Your task to perform on an android device: Add lg ultragear to the cart on bestbuy.com Image 0: 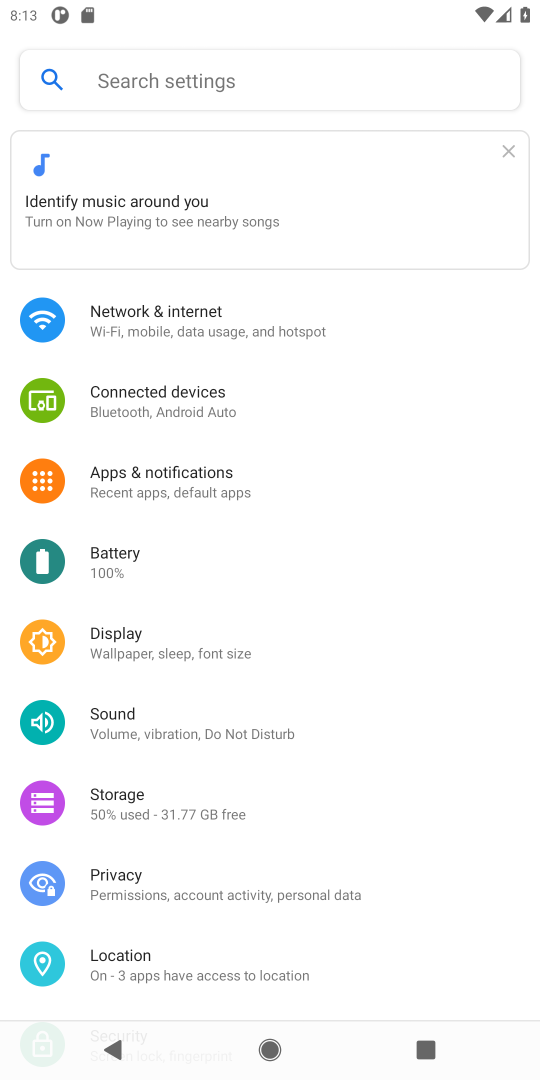
Step 0: press home button
Your task to perform on an android device: Add lg ultragear to the cart on bestbuy.com Image 1: 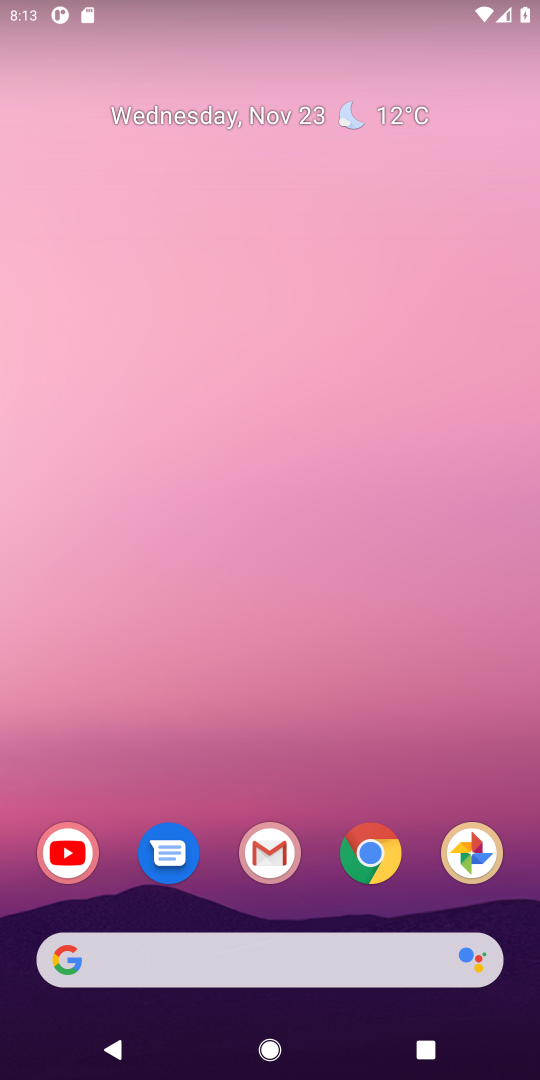
Step 1: click (363, 847)
Your task to perform on an android device: Add lg ultragear to the cart on bestbuy.com Image 2: 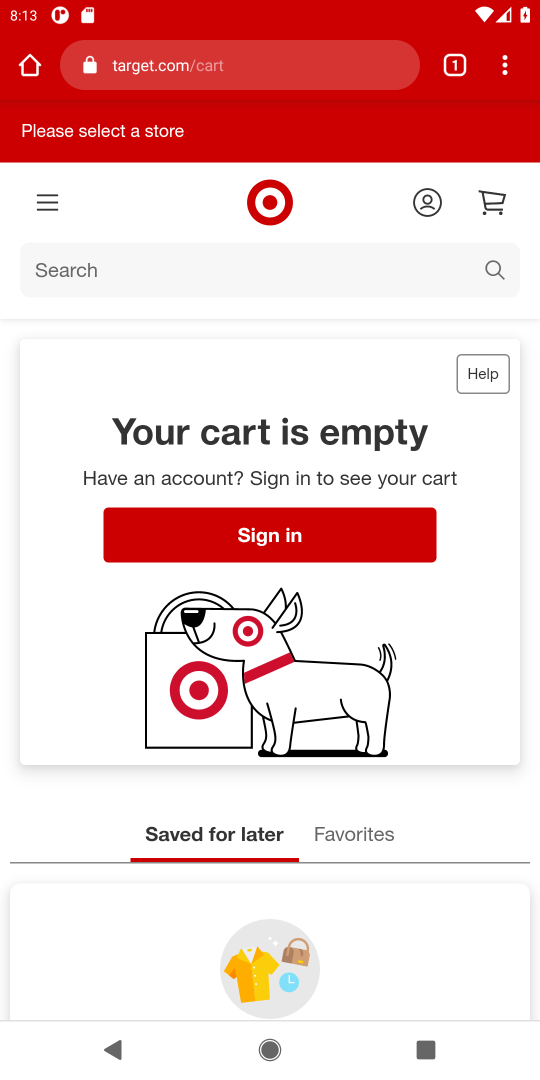
Step 2: click (200, 74)
Your task to perform on an android device: Add lg ultragear to the cart on bestbuy.com Image 3: 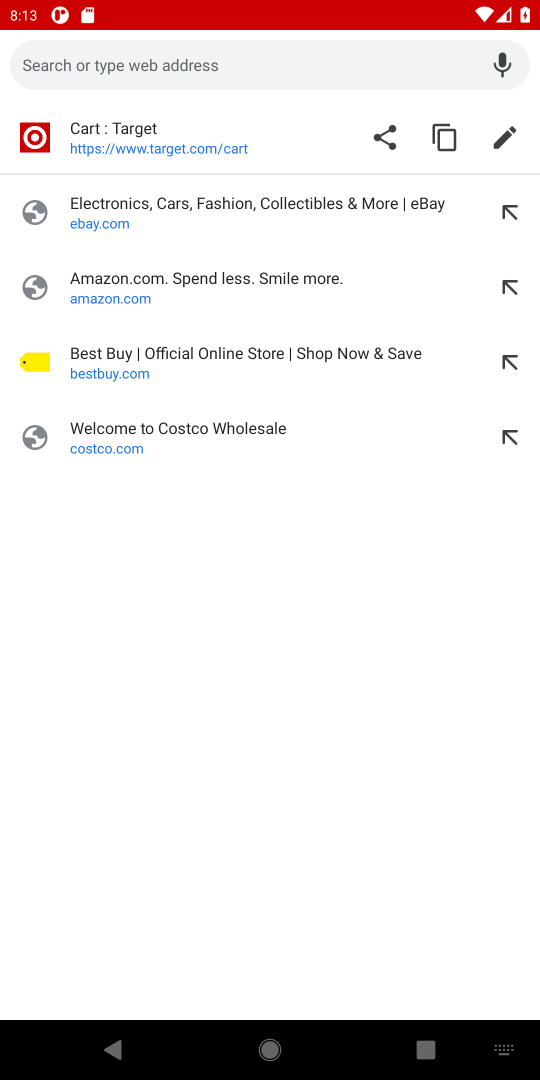
Step 3: click (102, 365)
Your task to perform on an android device: Add lg ultragear to the cart on bestbuy.com Image 4: 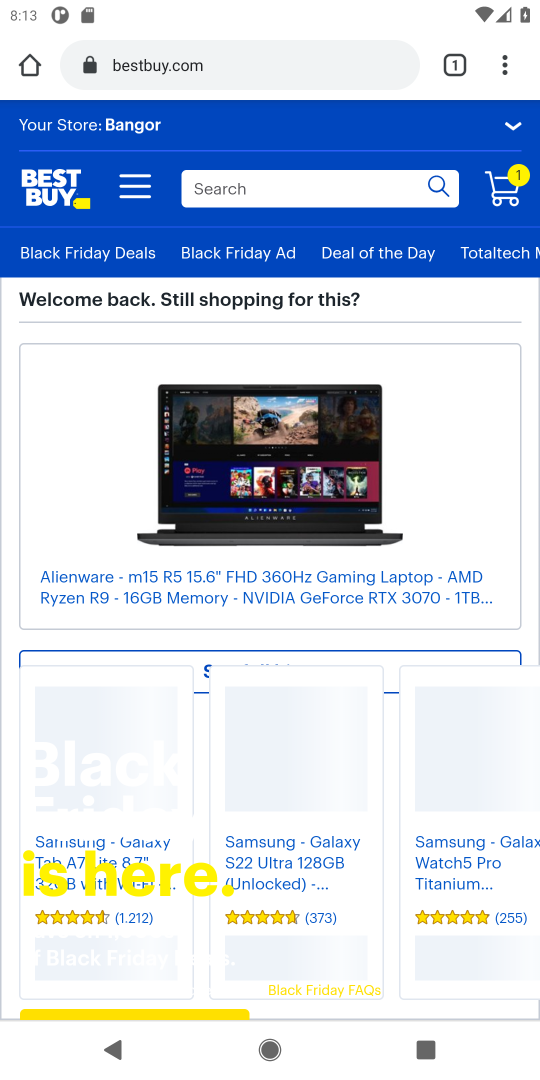
Step 4: click (267, 190)
Your task to perform on an android device: Add lg ultragear to the cart on bestbuy.com Image 5: 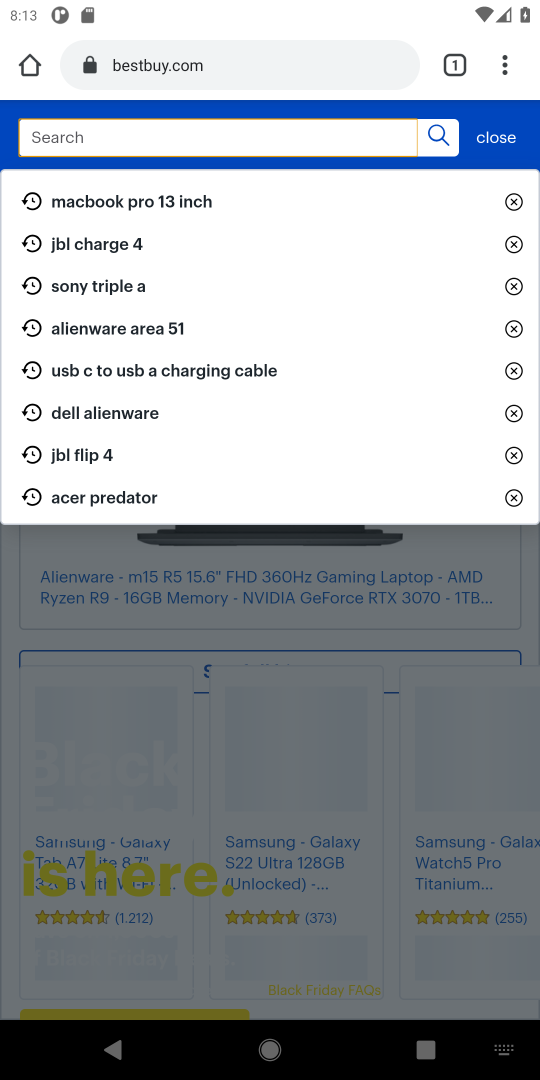
Step 5: type "lg ultragear"
Your task to perform on an android device: Add lg ultragear to the cart on bestbuy.com Image 6: 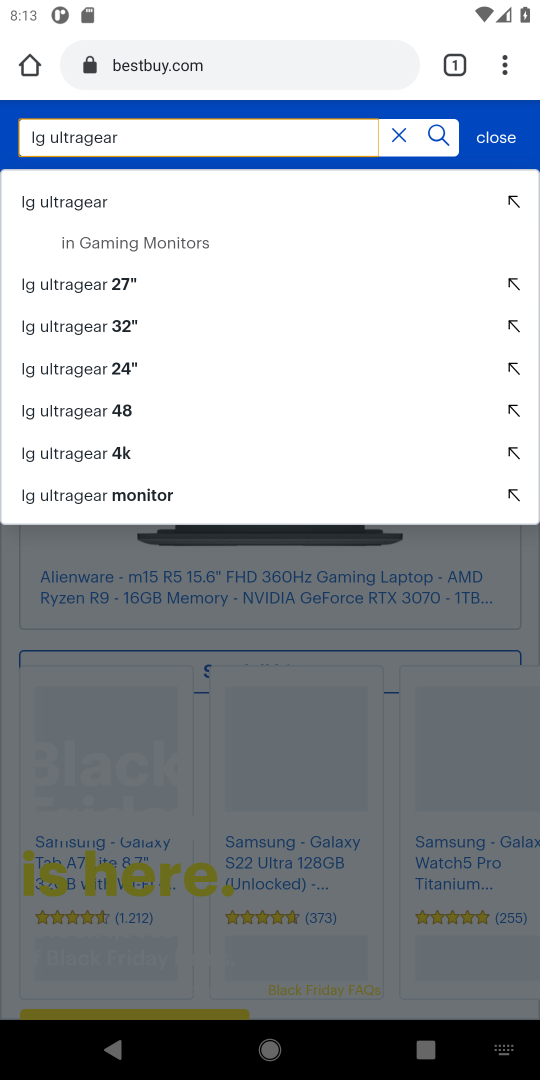
Step 6: click (81, 211)
Your task to perform on an android device: Add lg ultragear to the cart on bestbuy.com Image 7: 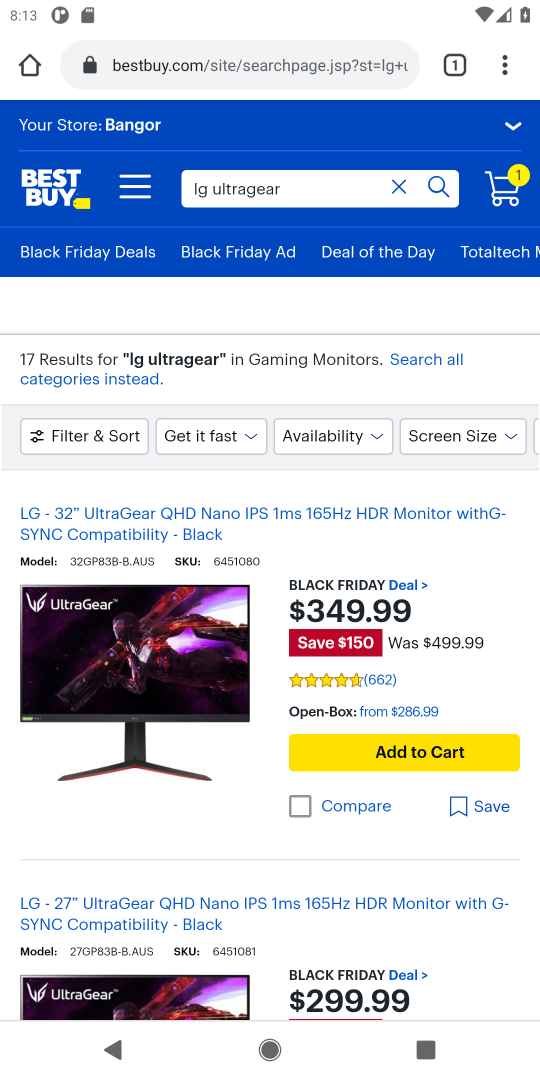
Step 7: drag from (175, 735) to (179, 540)
Your task to perform on an android device: Add lg ultragear to the cart on bestbuy.com Image 8: 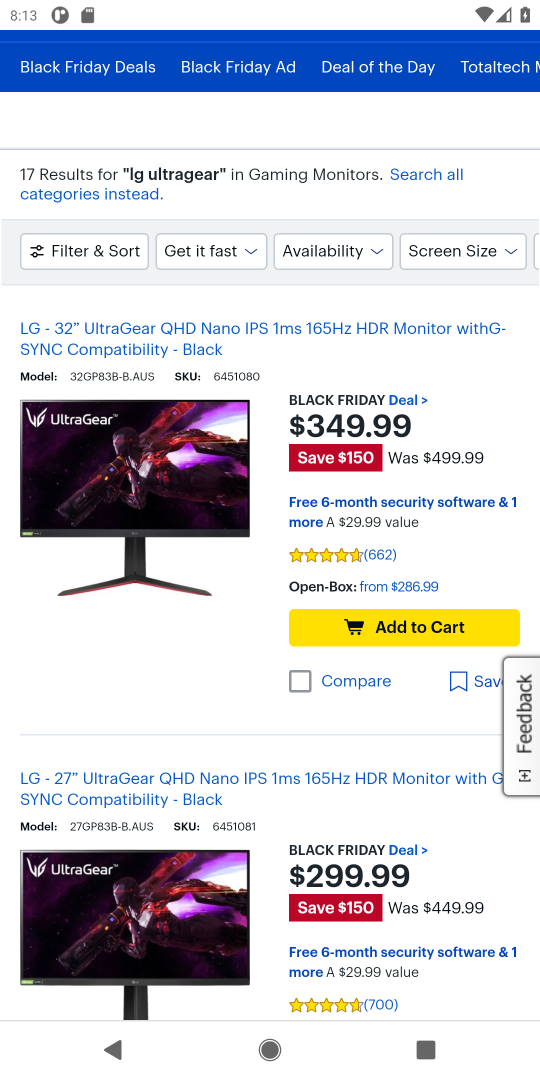
Step 8: click (384, 633)
Your task to perform on an android device: Add lg ultragear to the cart on bestbuy.com Image 9: 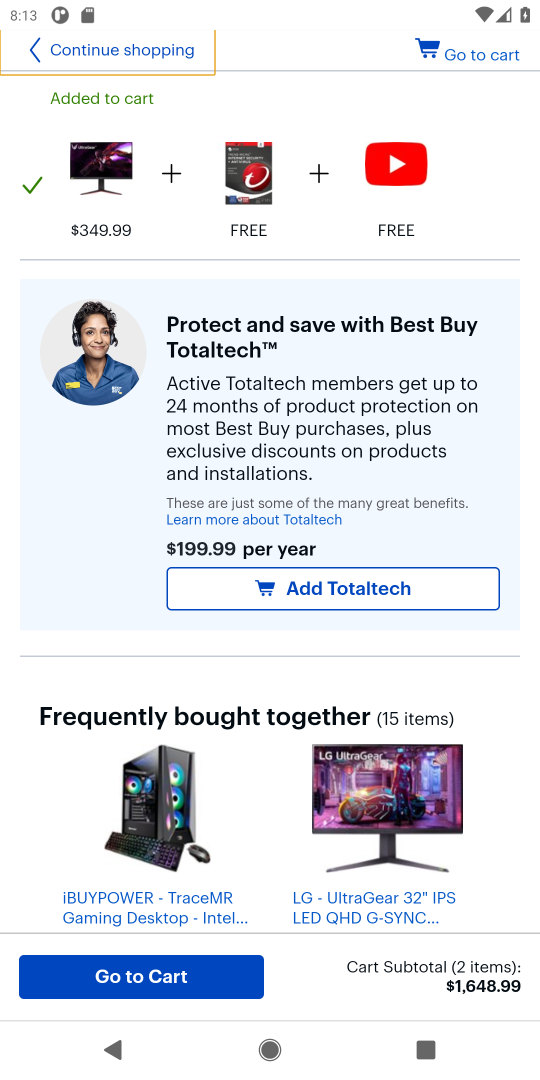
Step 9: task complete